Your task to perform on an android device: Open Google Maps and go to "Timeline" Image 0: 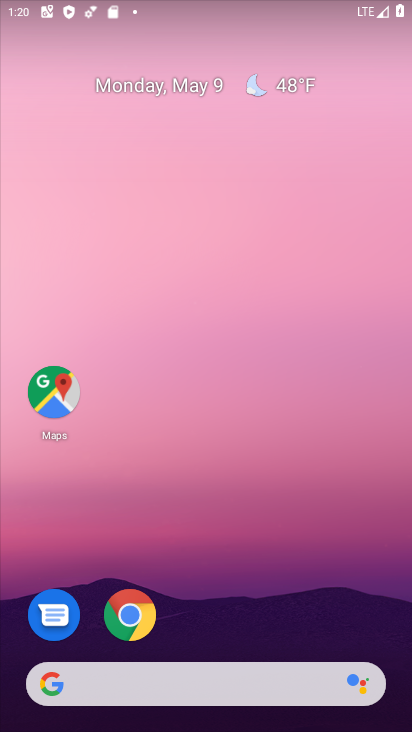
Step 0: click (53, 390)
Your task to perform on an android device: Open Google Maps and go to "Timeline" Image 1: 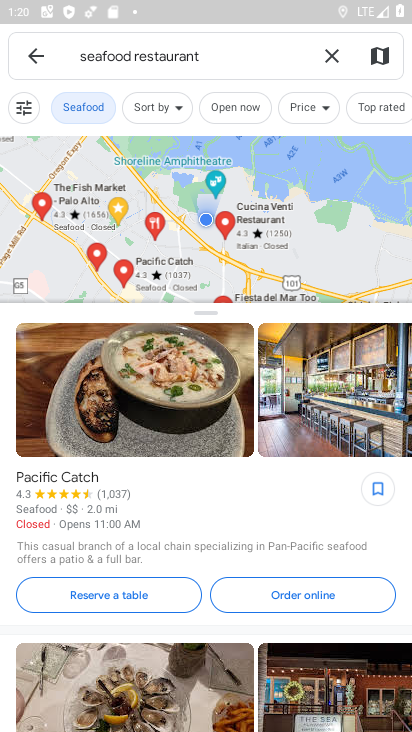
Step 1: click (329, 56)
Your task to perform on an android device: Open Google Maps and go to "Timeline" Image 2: 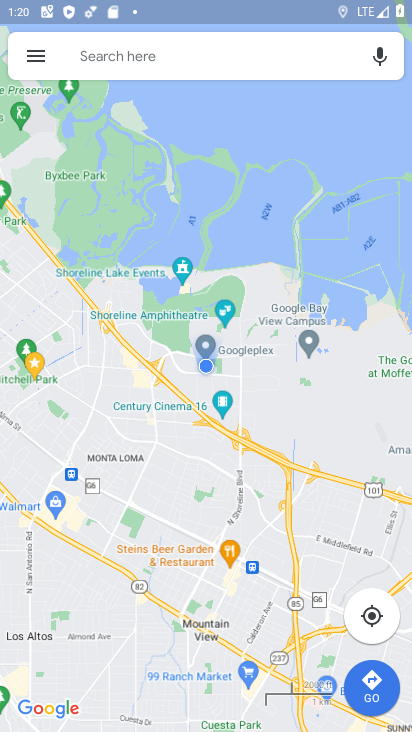
Step 2: click (35, 54)
Your task to perform on an android device: Open Google Maps and go to "Timeline" Image 3: 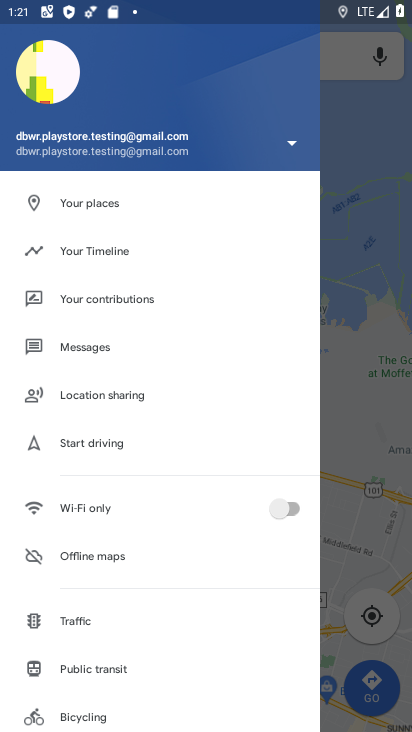
Step 3: click (96, 250)
Your task to perform on an android device: Open Google Maps and go to "Timeline" Image 4: 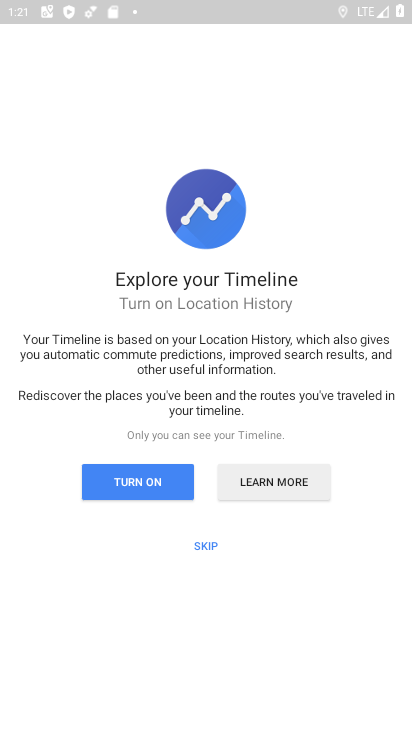
Step 4: click (200, 544)
Your task to perform on an android device: Open Google Maps and go to "Timeline" Image 5: 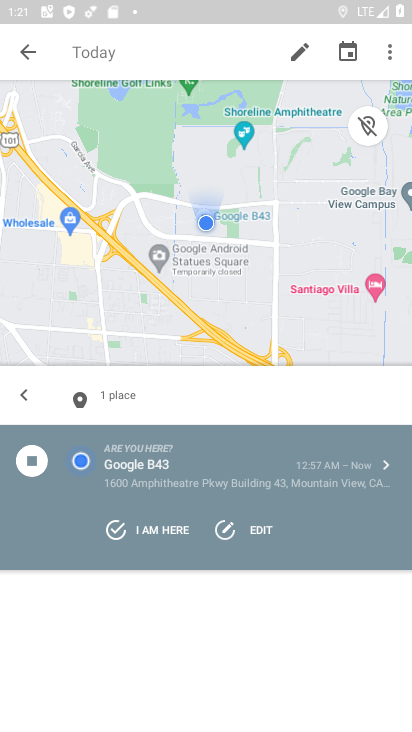
Step 5: task complete